Your task to perform on an android device: Open Youtube and go to the subscriptions tab Image 0: 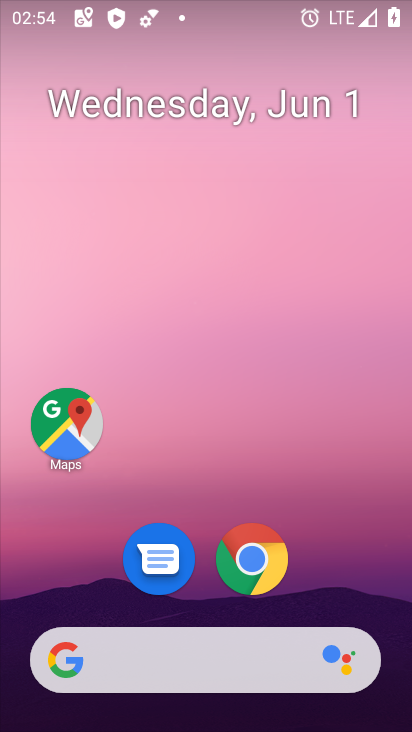
Step 0: press home button
Your task to perform on an android device: Open Youtube and go to the subscriptions tab Image 1: 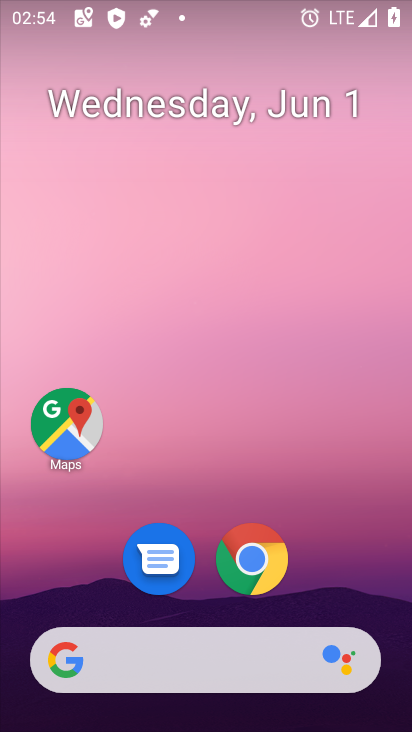
Step 1: drag from (303, 604) to (320, 88)
Your task to perform on an android device: Open Youtube and go to the subscriptions tab Image 2: 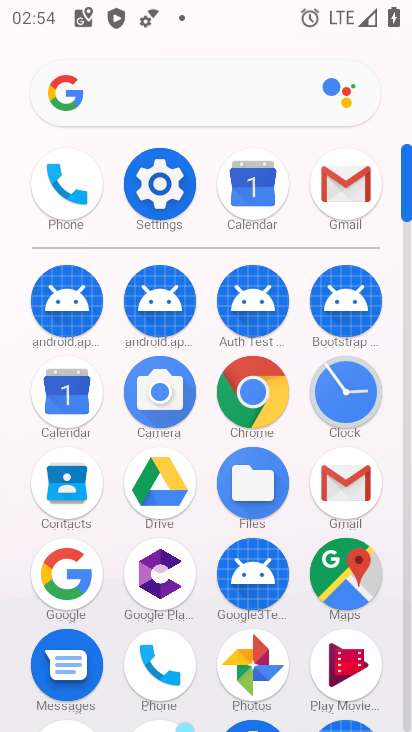
Step 2: drag from (383, 608) to (393, 141)
Your task to perform on an android device: Open Youtube and go to the subscriptions tab Image 3: 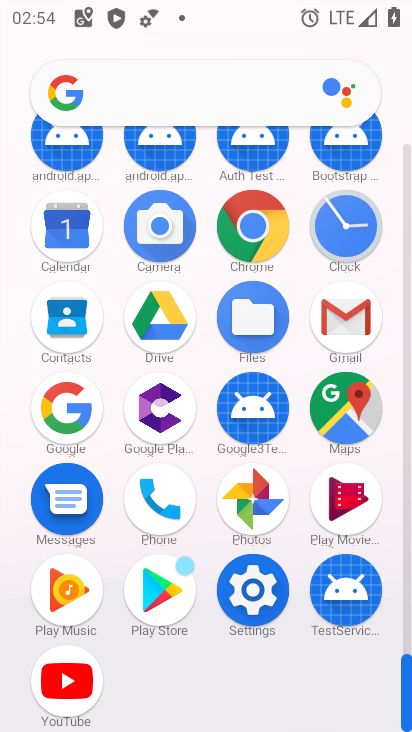
Step 3: click (48, 680)
Your task to perform on an android device: Open Youtube and go to the subscriptions tab Image 4: 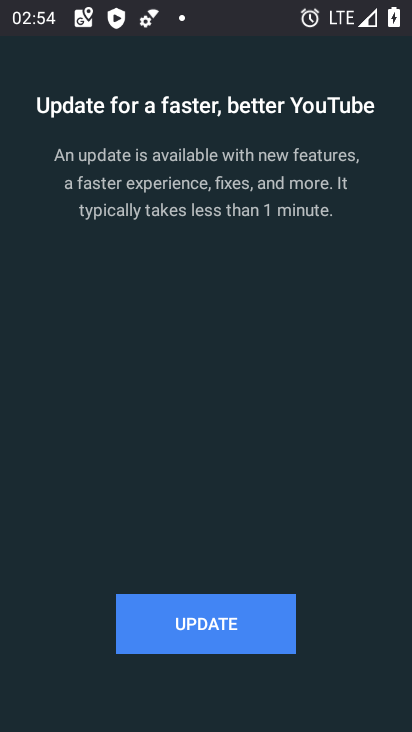
Step 4: click (201, 612)
Your task to perform on an android device: Open Youtube and go to the subscriptions tab Image 5: 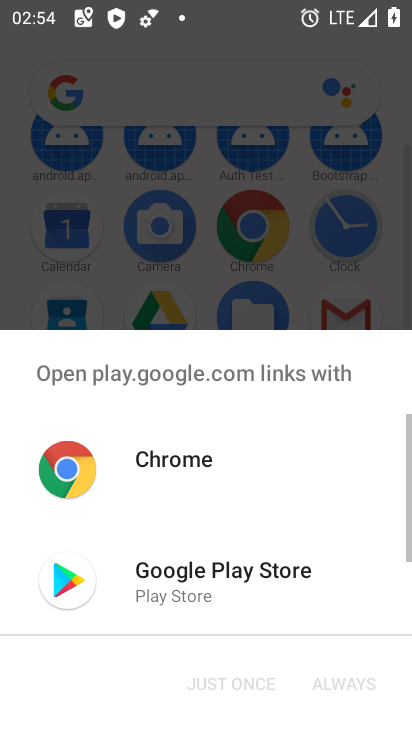
Step 5: click (165, 591)
Your task to perform on an android device: Open Youtube and go to the subscriptions tab Image 6: 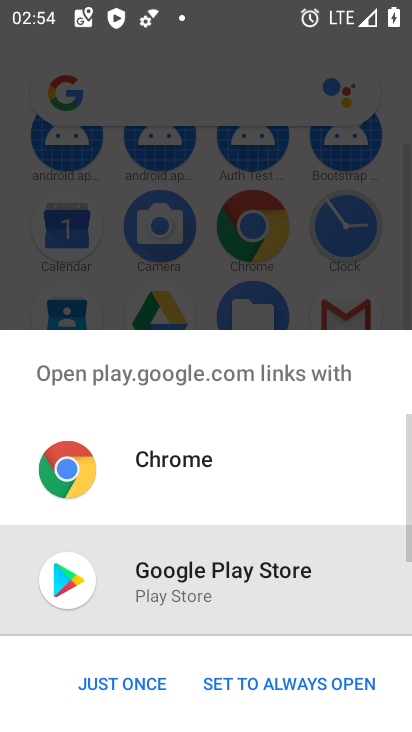
Step 6: click (121, 681)
Your task to perform on an android device: Open Youtube and go to the subscriptions tab Image 7: 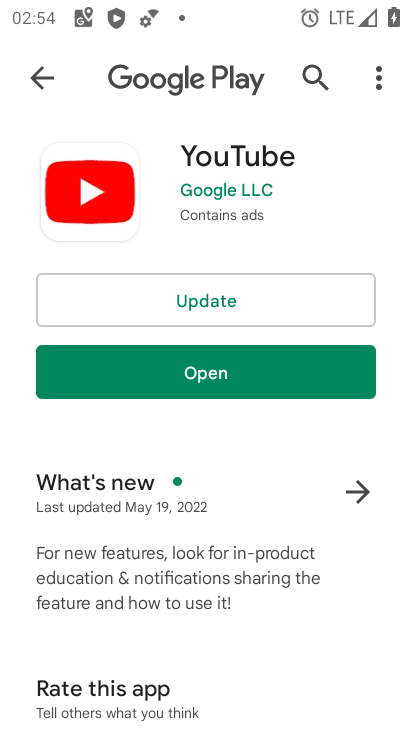
Step 7: click (184, 291)
Your task to perform on an android device: Open Youtube and go to the subscriptions tab Image 8: 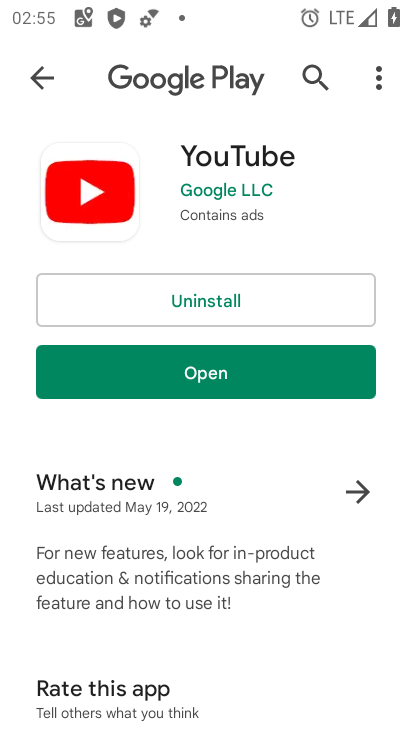
Step 8: click (266, 372)
Your task to perform on an android device: Open Youtube and go to the subscriptions tab Image 9: 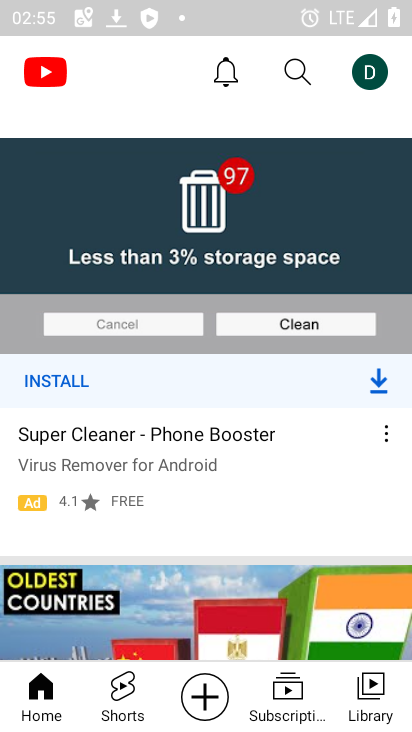
Step 9: click (278, 697)
Your task to perform on an android device: Open Youtube and go to the subscriptions tab Image 10: 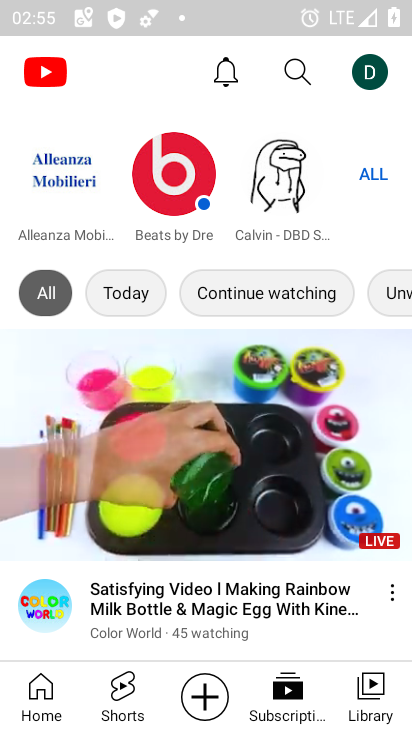
Step 10: click (278, 697)
Your task to perform on an android device: Open Youtube and go to the subscriptions tab Image 11: 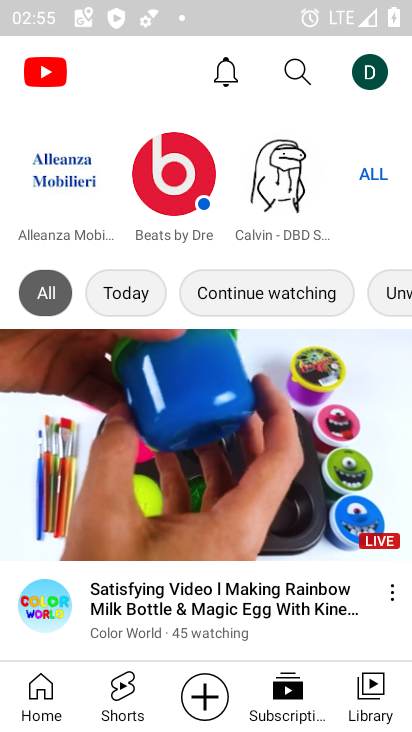
Step 11: task complete